Your task to perform on an android device: What's on my calendar today? Image 0: 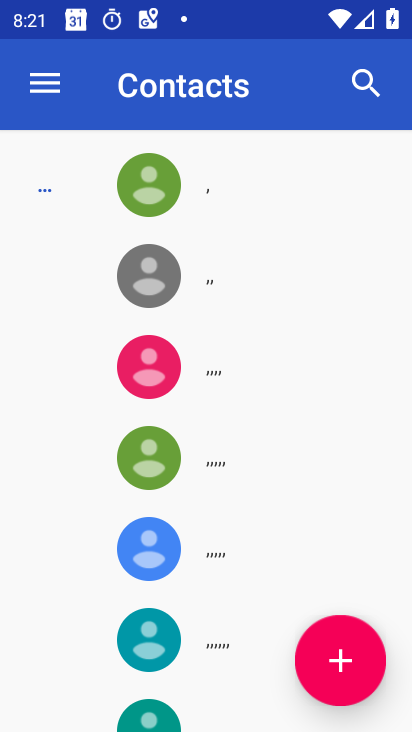
Step 0: press home button
Your task to perform on an android device: What's on my calendar today? Image 1: 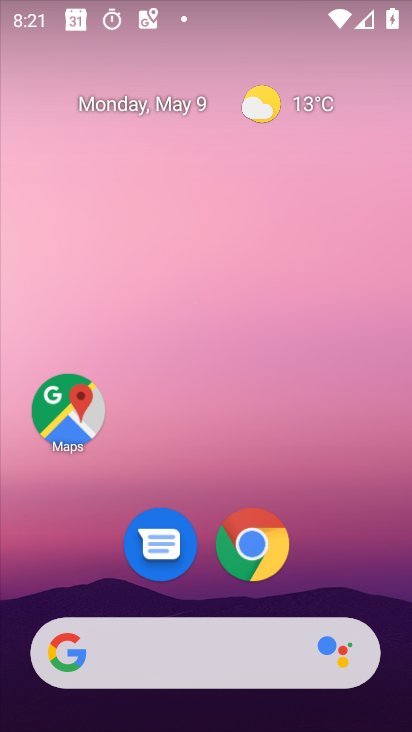
Step 1: drag from (357, 576) to (357, 65)
Your task to perform on an android device: What's on my calendar today? Image 2: 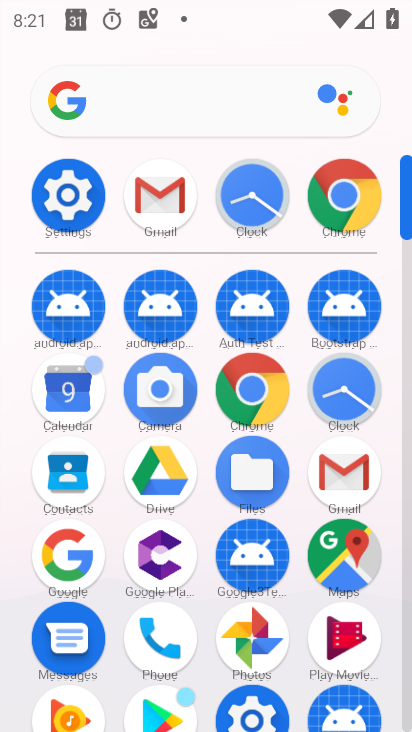
Step 2: click (58, 409)
Your task to perform on an android device: What's on my calendar today? Image 3: 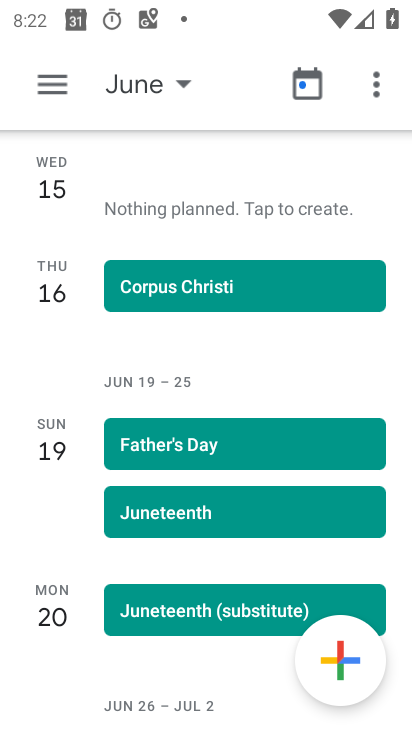
Step 3: click (133, 89)
Your task to perform on an android device: What's on my calendar today? Image 4: 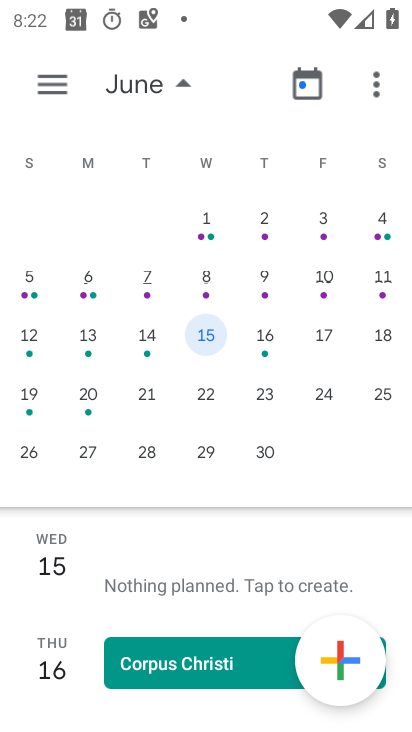
Step 4: task complete